Your task to perform on an android device: What is the news today? Image 0: 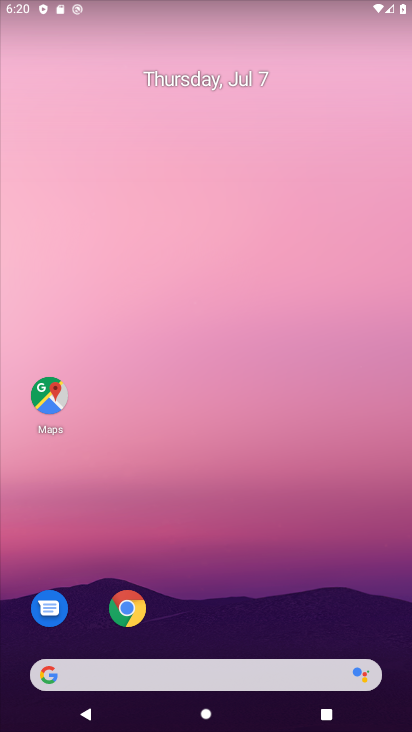
Step 0: drag from (197, 630) to (287, 67)
Your task to perform on an android device: What is the news today? Image 1: 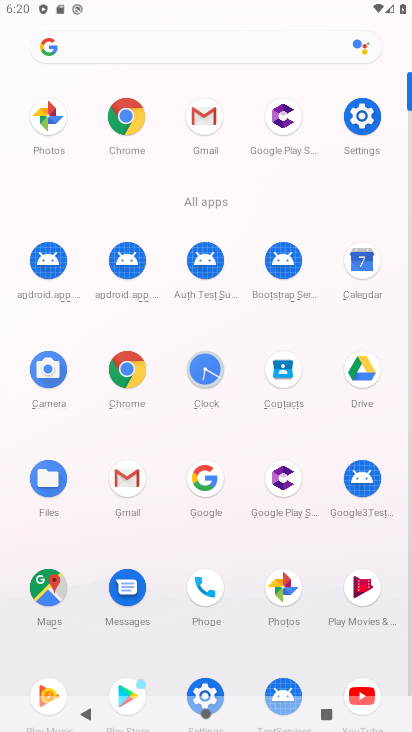
Step 1: click (369, 119)
Your task to perform on an android device: What is the news today? Image 2: 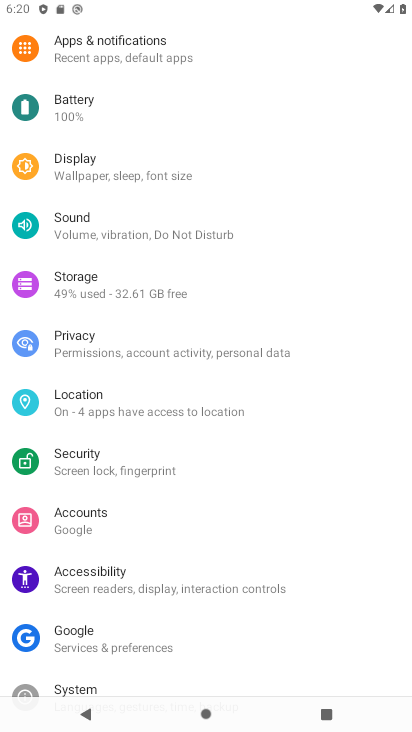
Step 2: drag from (238, 184) to (186, 731)
Your task to perform on an android device: What is the news today? Image 3: 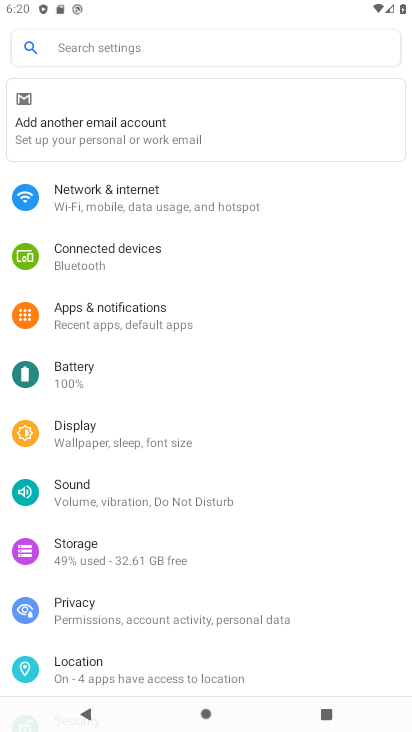
Step 3: click (97, 42)
Your task to perform on an android device: What is the news today? Image 4: 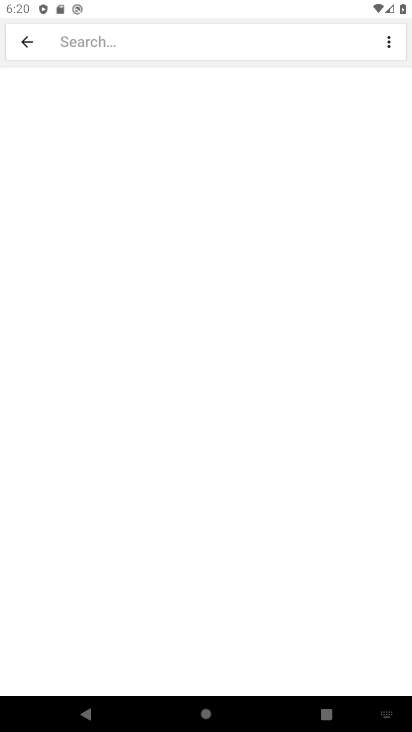
Step 4: press back button
Your task to perform on an android device: What is the news today? Image 5: 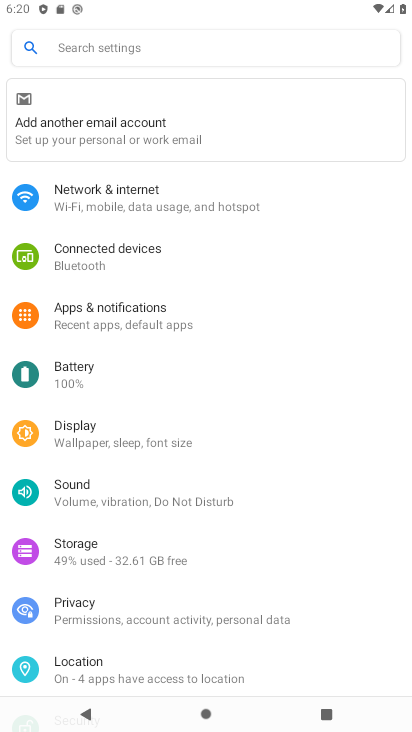
Step 5: press back button
Your task to perform on an android device: What is the news today? Image 6: 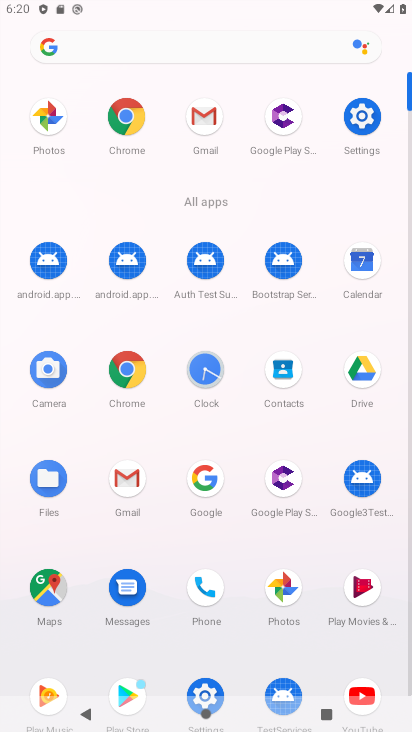
Step 6: press back button
Your task to perform on an android device: What is the news today? Image 7: 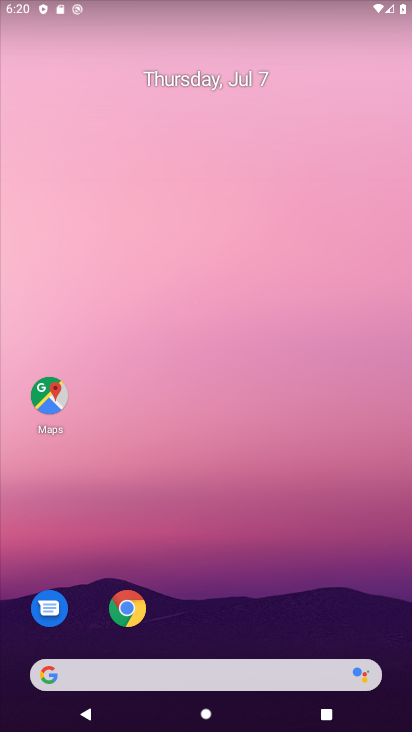
Step 7: click (154, 673)
Your task to perform on an android device: What is the news today? Image 8: 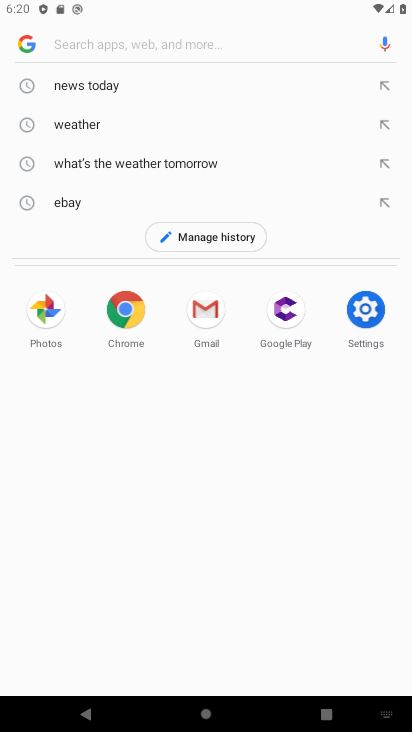
Step 8: click (103, 81)
Your task to perform on an android device: What is the news today? Image 9: 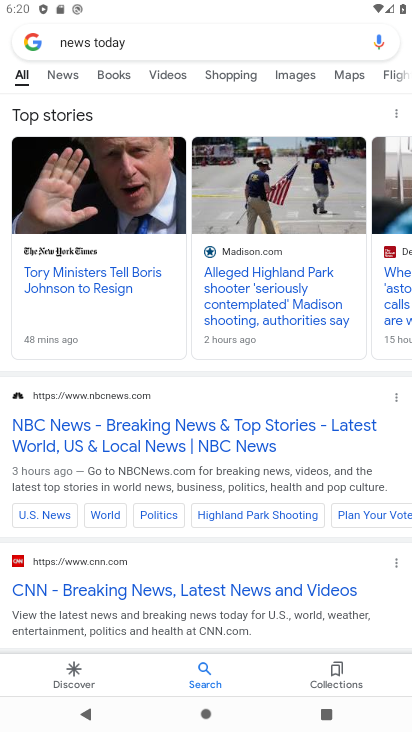
Step 9: task complete